Your task to perform on an android device: Show the shopping cart on target. Search for "macbook air" on target, select the first entry, and add it to the cart. Image 0: 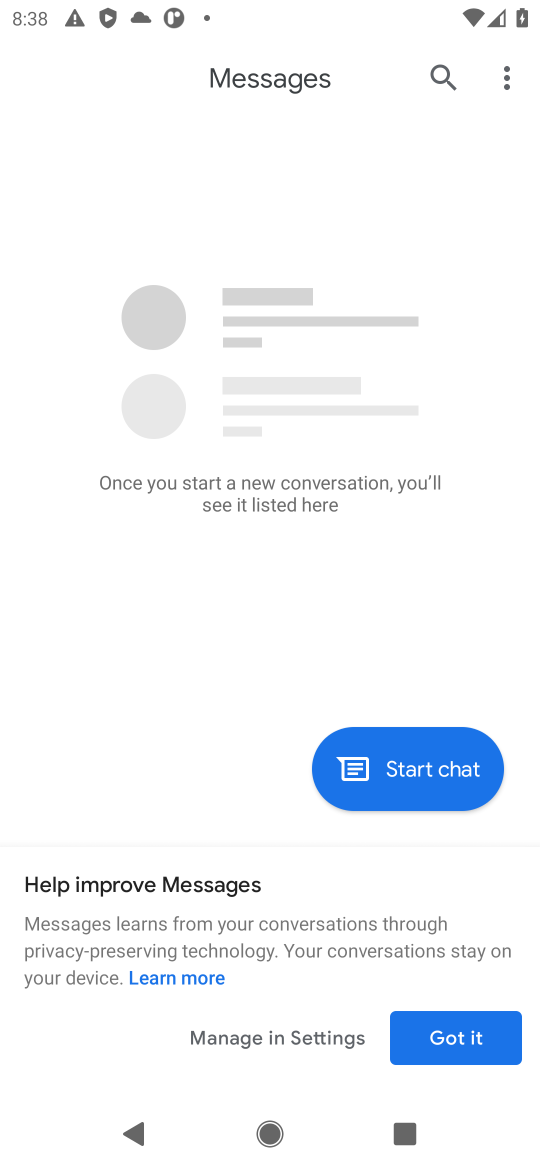
Step 0: click (464, 1061)
Your task to perform on an android device: Show the shopping cart on target. Search for "macbook air" on target, select the first entry, and add it to the cart. Image 1: 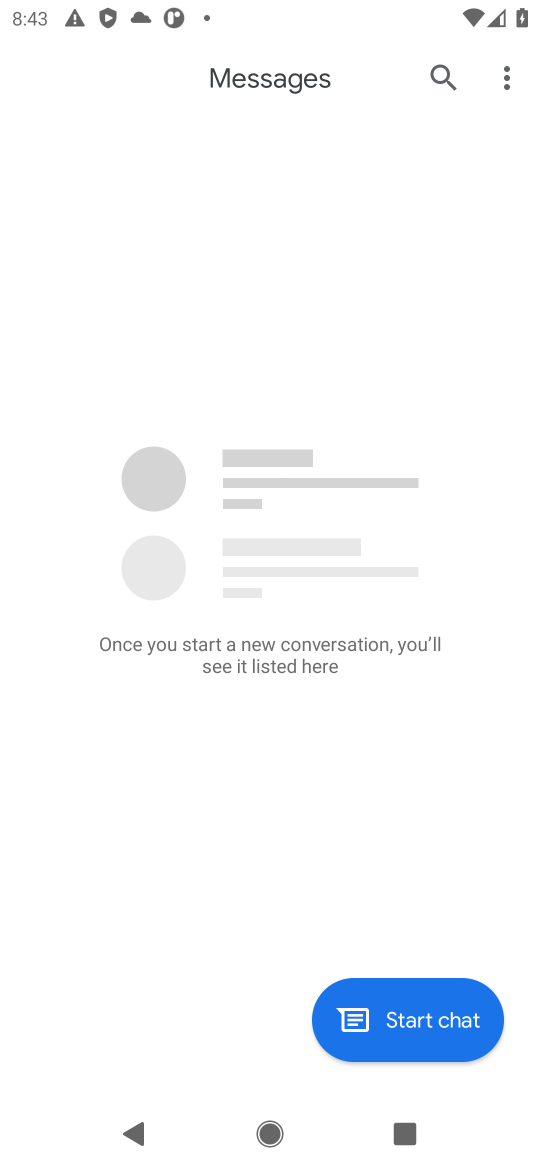
Step 1: press home button
Your task to perform on an android device: Show the shopping cart on target. Search for "macbook air" on target, select the first entry, and add it to the cart. Image 2: 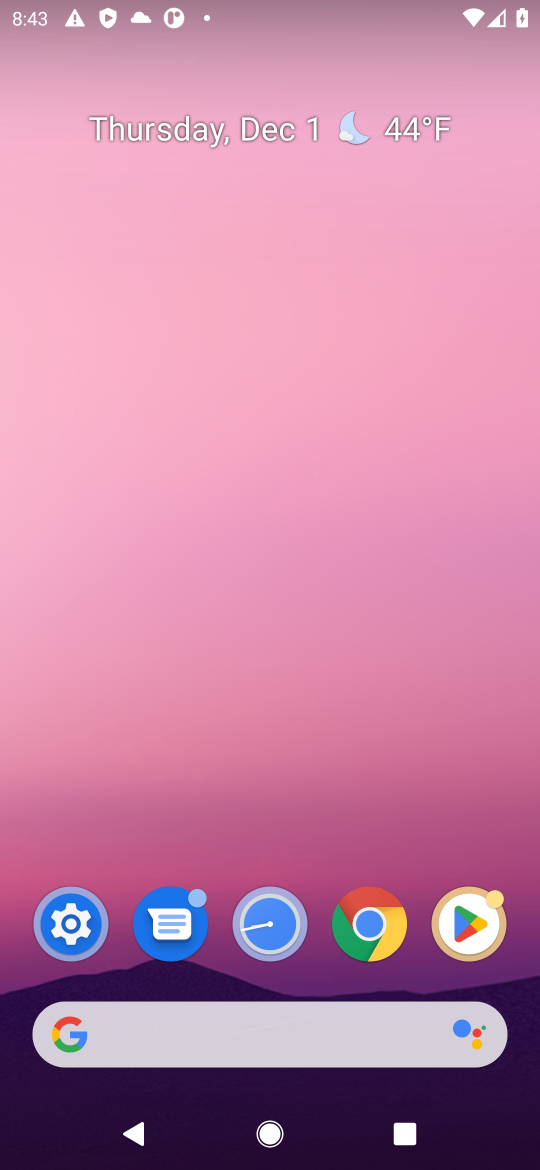
Step 2: click (261, 1020)
Your task to perform on an android device: Show the shopping cart on target. Search for "macbook air" on target, select the first entry, and add it to the cart. Image 3: 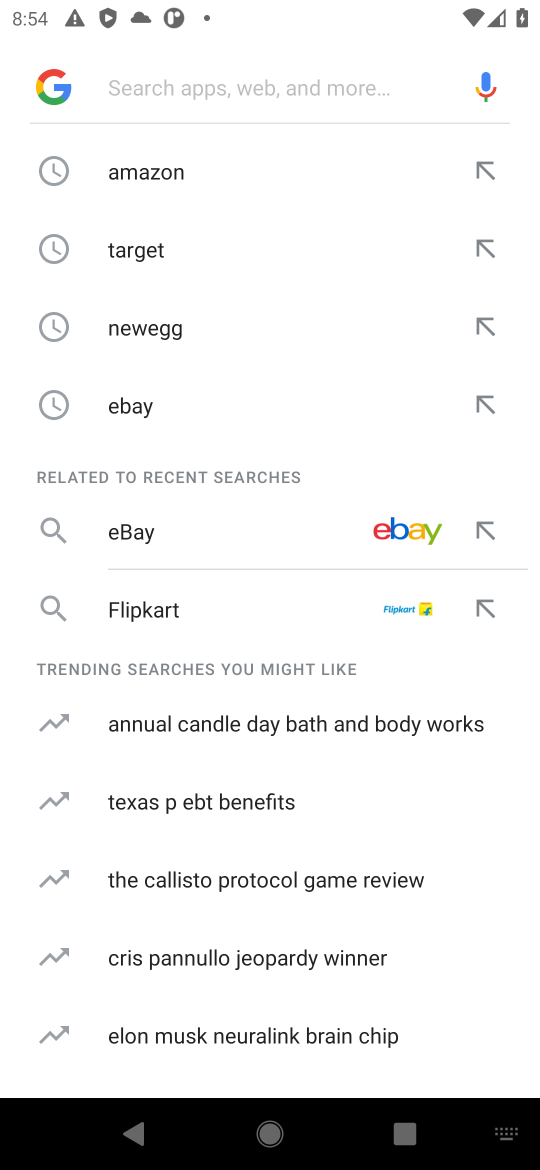
Step 3: type "macbook"
Your task to perform on an android device: Show the shopping cart on target. Search for "macbook air" on target, select the first entry, and add it to the cart. Image 4: 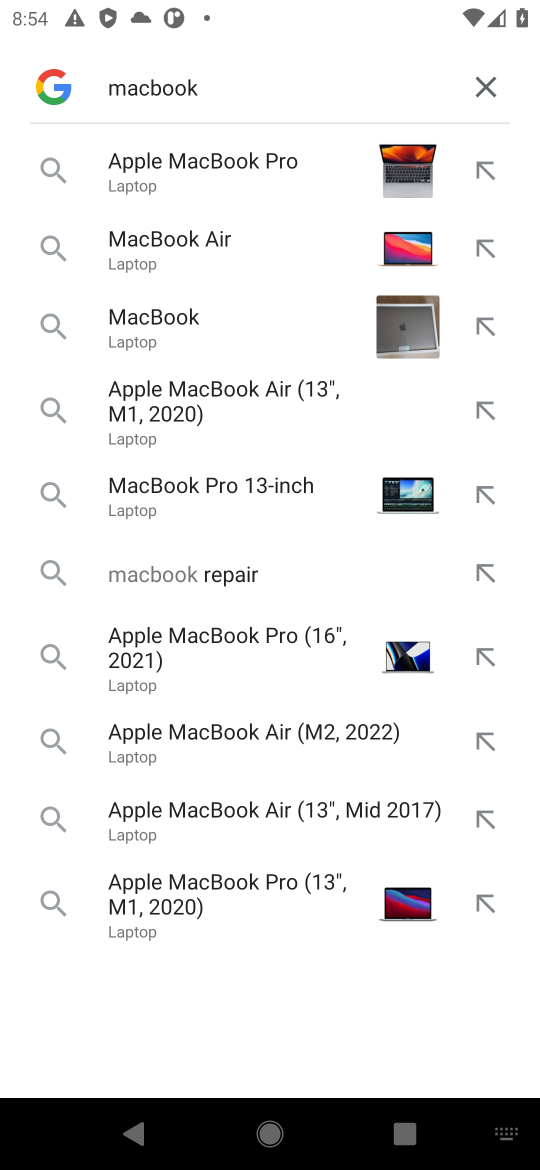
Step 4: click (215, 174)
Your task to perform on an android device: Show the shopping cart on target. Search for "macbook air" on target, select the first entry, and add it to the cart. Image 5: 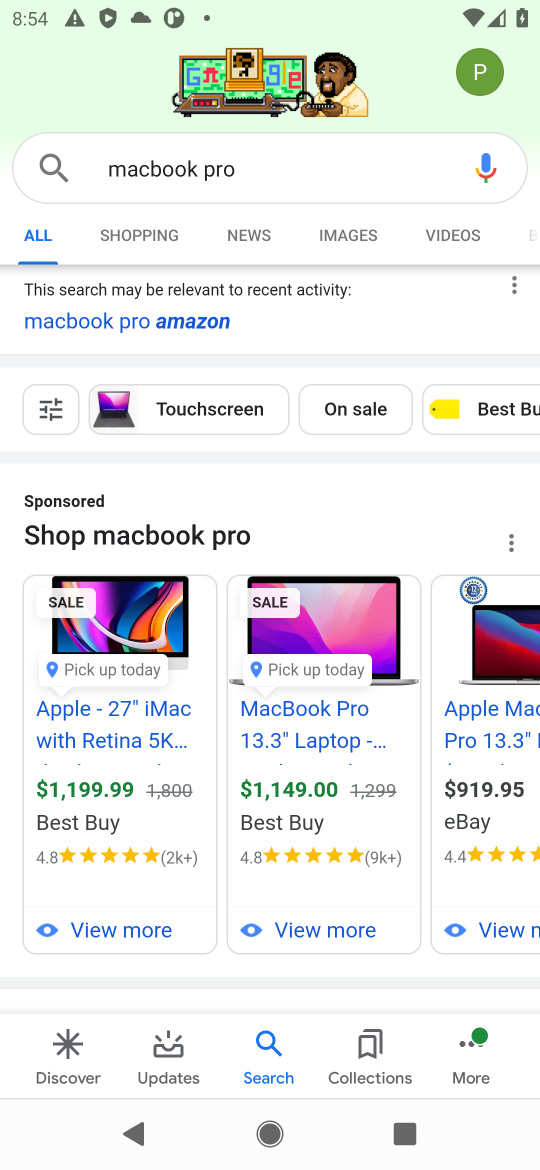
Step 5: task complete